Your task to perform on an android device: Open CNN.com Image 0: 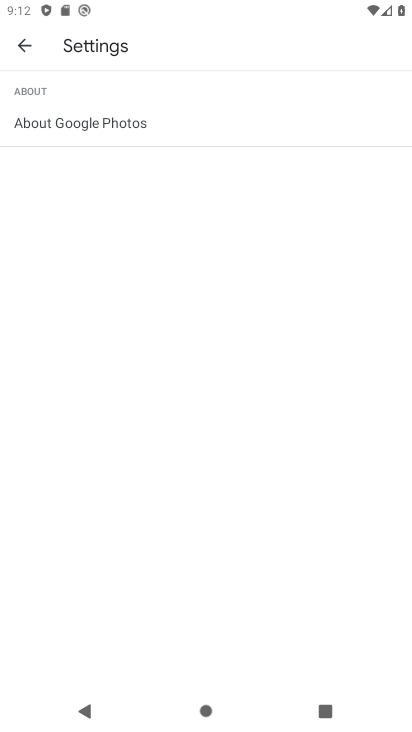
Step 0: press home button
Your task to perform on an android device: Open CNN.com Image 1: 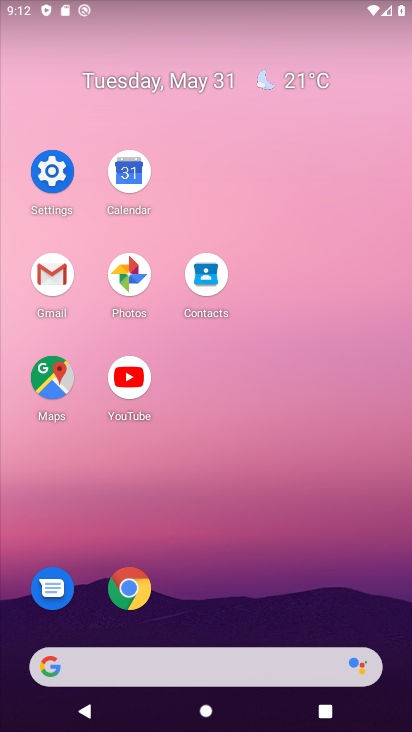
Step 1: click (134, 592)
Your task to perform on an android device: Open CNN.com Image 2: 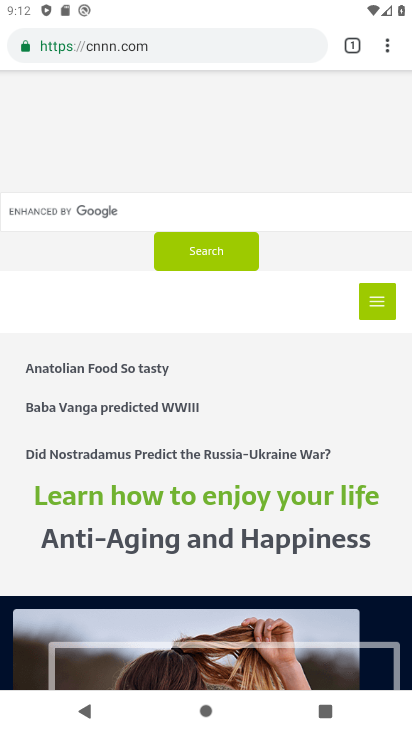
Step 2: click (354, 40)
Your task to perform on an android device: Open CNN.com Image 3: 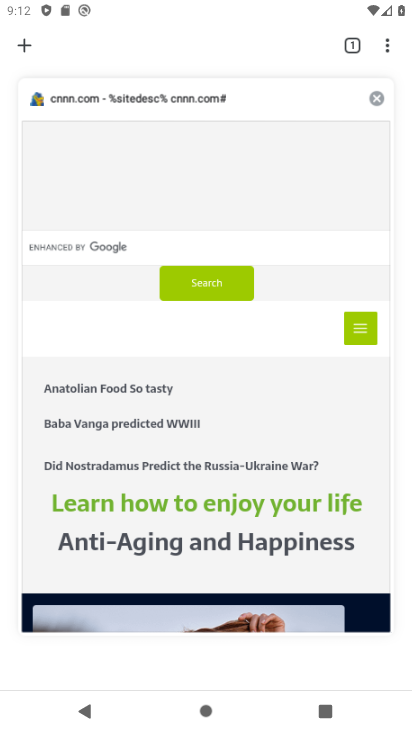
Step 3: click (32, 46)
Your task to perform on an android device: Open CNN.com Image 4: 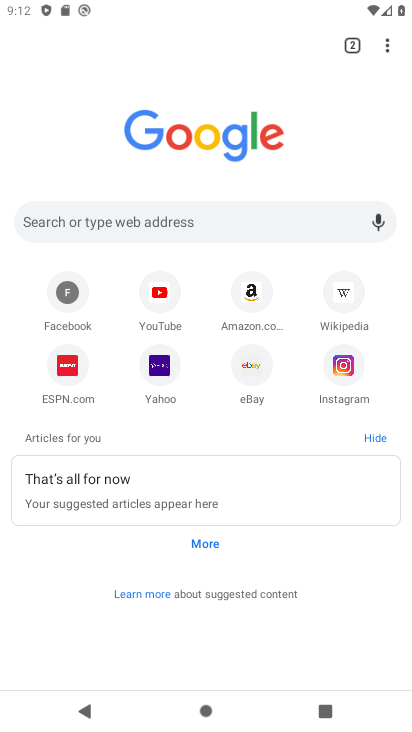
Step 4: click (152, 216)
Your task to perform on an android device: Open CNN.com Image 5: 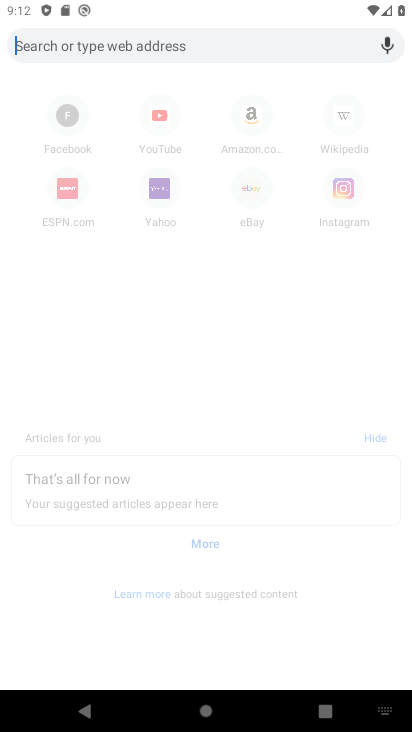
Step 5: type "cnn"
Your task to perform on an android device: Open CNN.com Image 6: 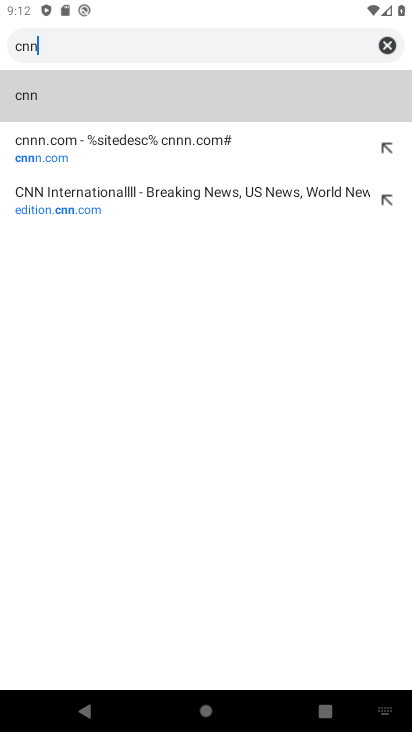
Step 6: click (47, 215)
Your task to perform on an android device: Open CNN.com Image 7: 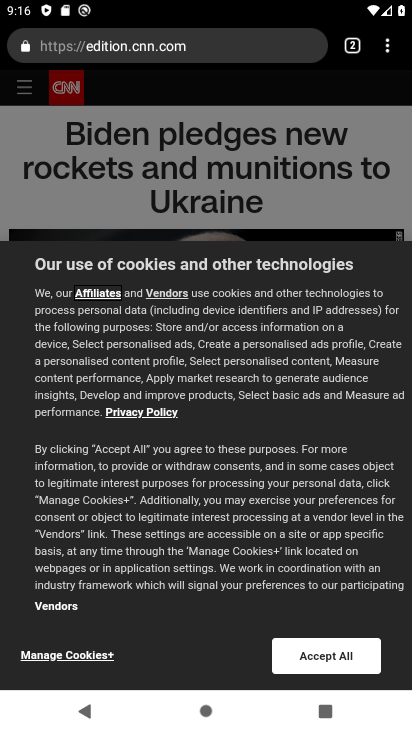
Step 7: task complete